Your task to perform on an android device: set an alarm Image 0: 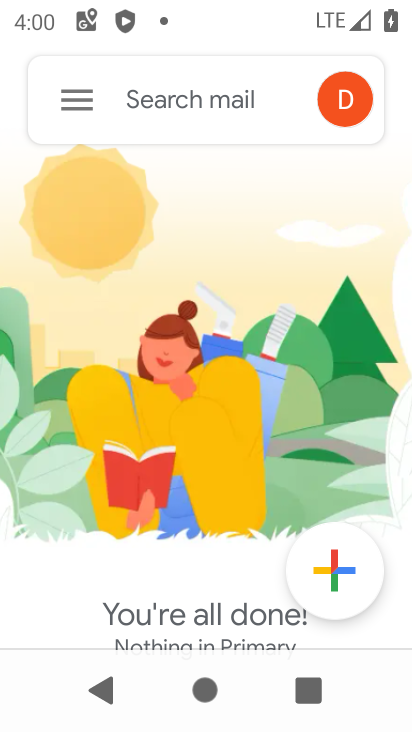
Step 0: press home button
Your task to perform on an android device: set an alarm Image 1: 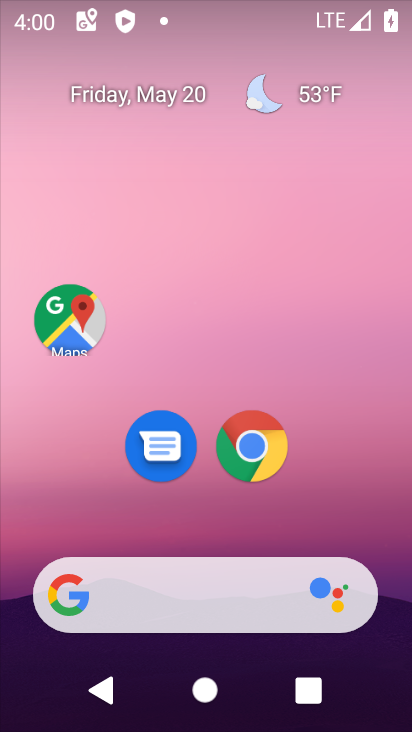
Step 1: drag from (372, 490) to (409, 56)
Your task to perform on an android device: set an alarm Image 2: 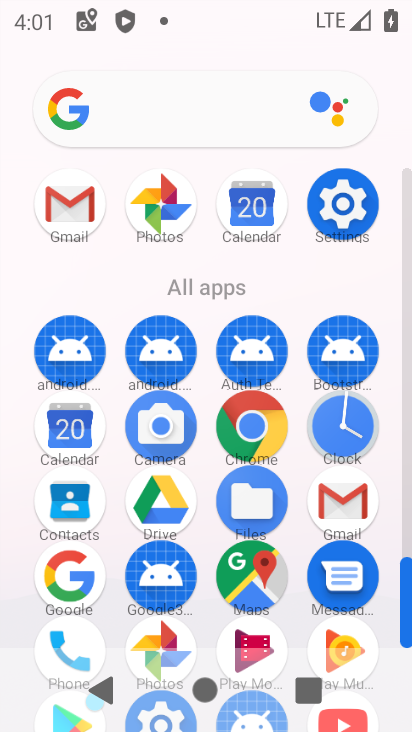
Step 2: click (336, 426)
Your task to perform on an android device: set an alarm Image 3: 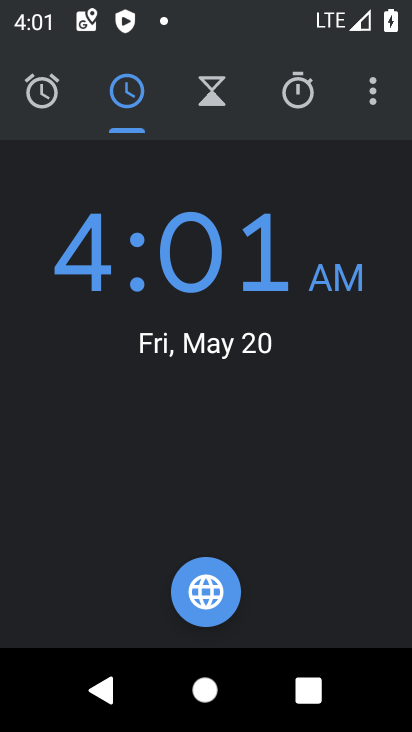
Step 3: click (54, 112)
Your task to perform on an android device: set an alarm Image 4: 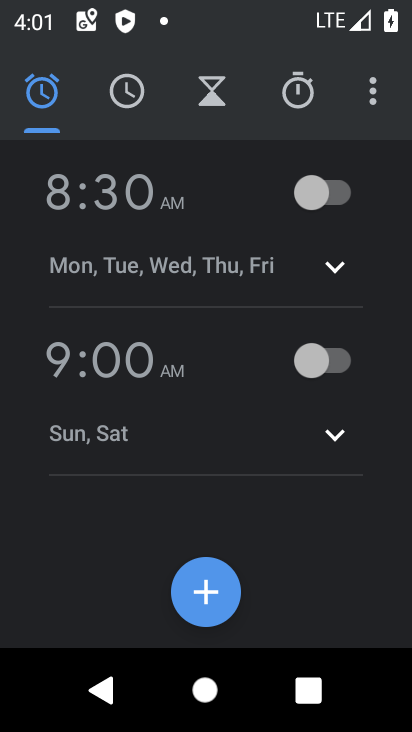
Step 4: click (346, 190)
Your task to perform on an android device: set an alarm Image 5: 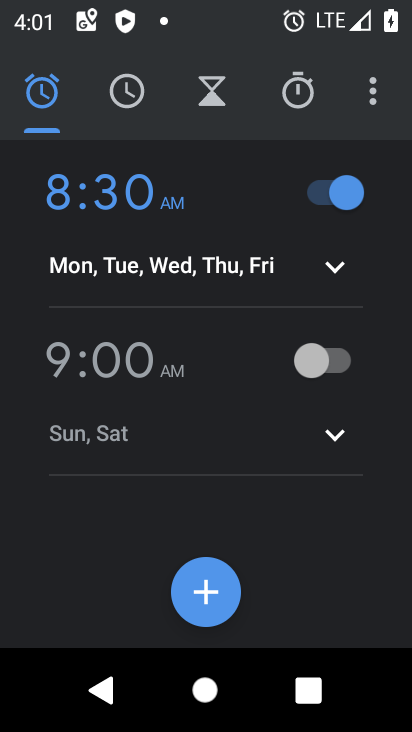
Step 5: task complete